Your task to perform on an android device: empty trash in google photos Image 0: 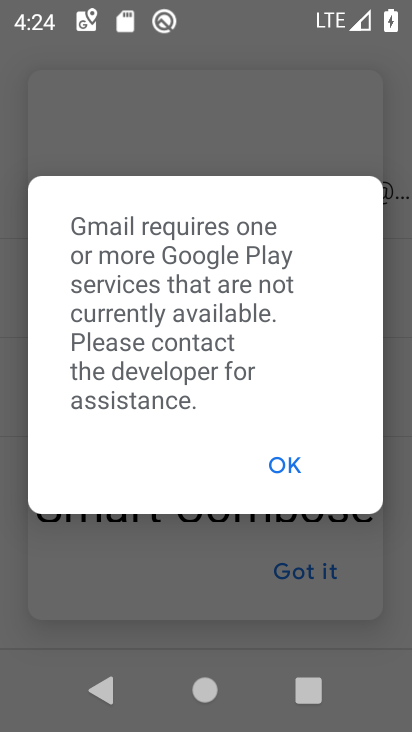
Step 0: press home button
Your task to perform on an android device: empty trash in google photos Image 1: 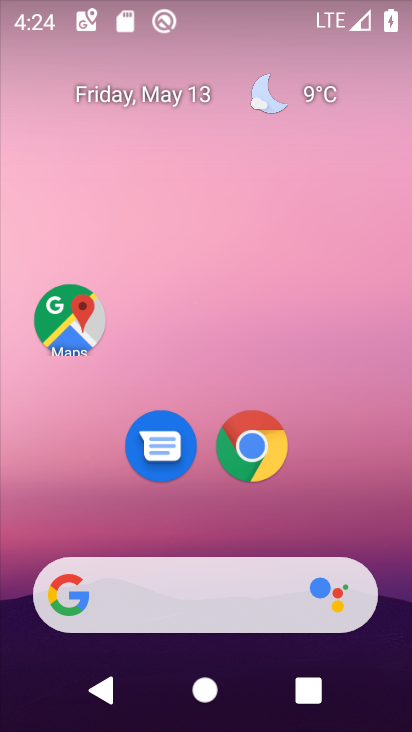
Step 1: drag from (211, 528) to (226, 25)
Your task to perform on an android device: empty trash in google photos Image 2: 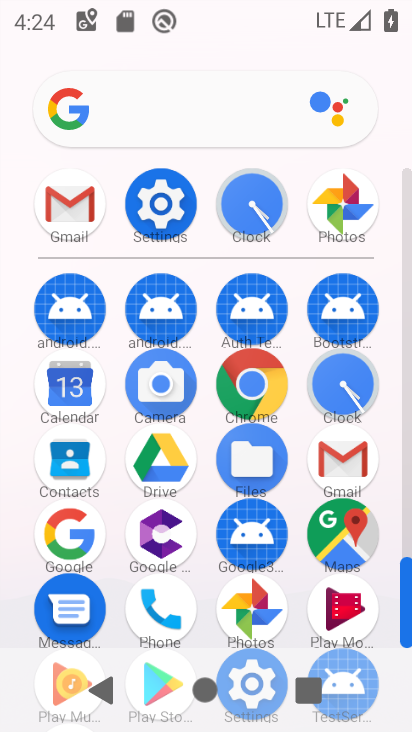
Step 2: click (242, 602)
Your task to perform on an android device: empty trash in google photos Image 3: 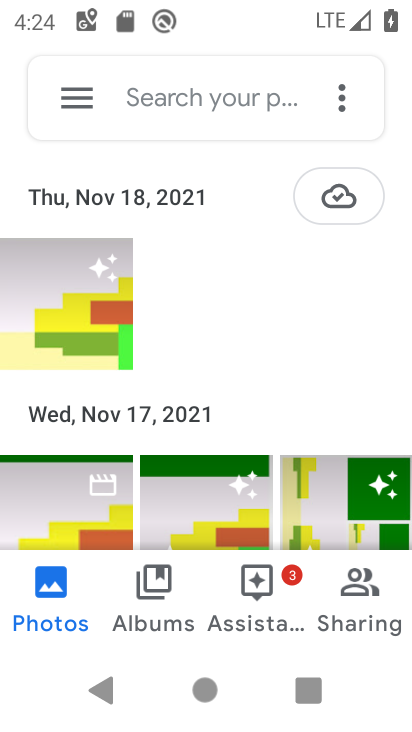
Step 3: click (94, 94)
Your task to perform on an android device: empty trash in google photos Image 4: 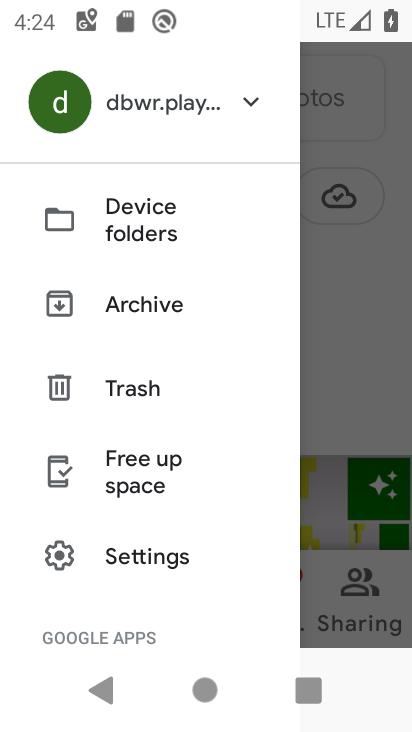
Step 4: click (158, 396)
Your task to perform on an android device: empty trash in google photos Image 5: 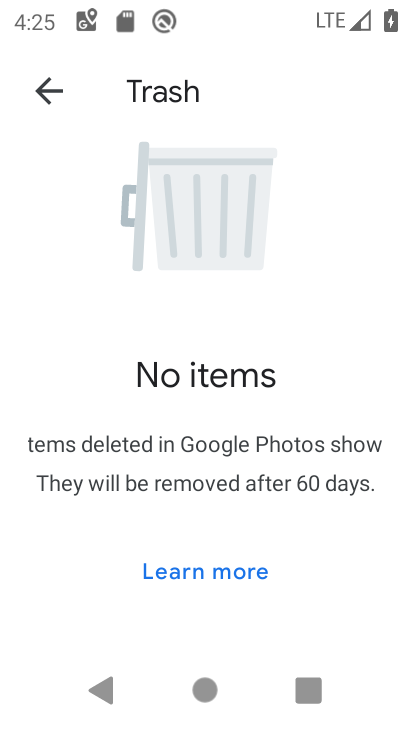
Step 5: task complete